Your task to perform on an android device: What's the weather? Image 0: 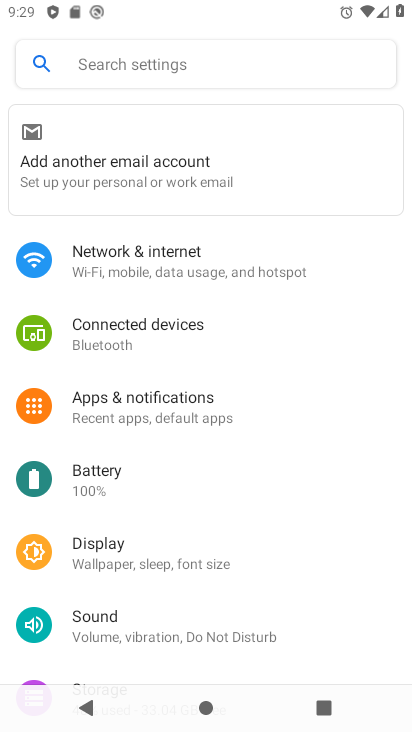
Step 0: press home button
Your task to perform on an android device: What's the weather? Image 1: 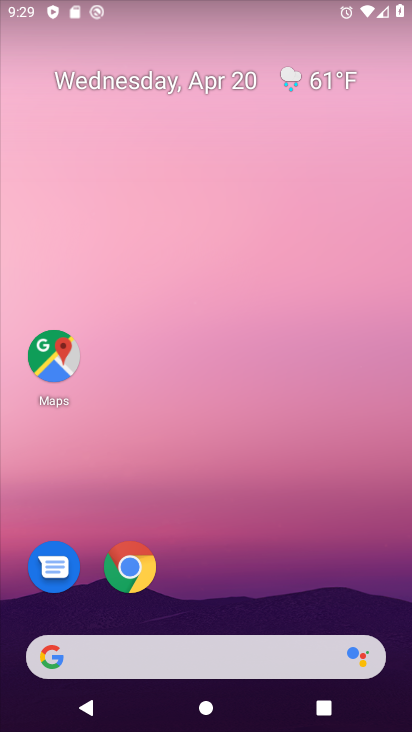
Step 1: drag from (215, 592) to (217, 150)
Your task to perform on an android device: What's the weather? Image 2: 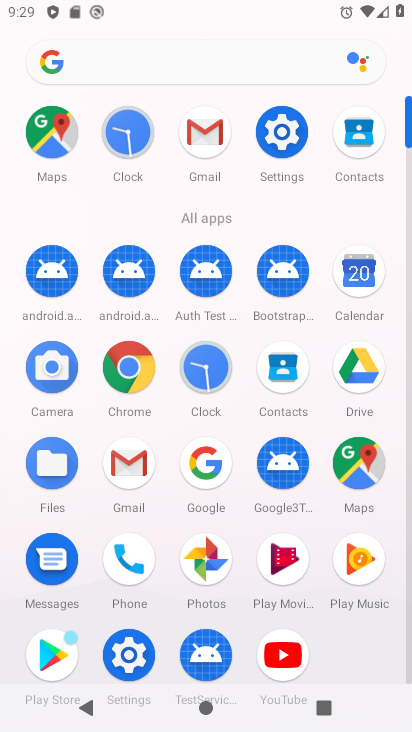
Step 2: click (202, 448)
Your task to perform on an android device: What's the weather? Image 3: 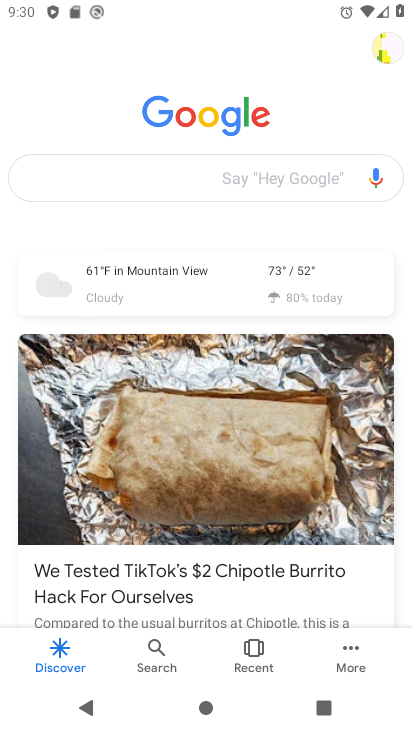
Step 3: click (180, 261)
Your task to perform on an android device: What's the weather? Image 4: 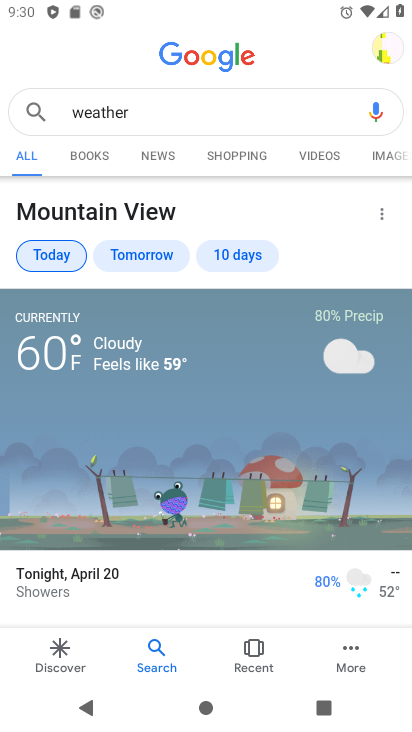
Step 4: click (169, 433)
Your task to perform on an android device: What's the weather? Image 5: 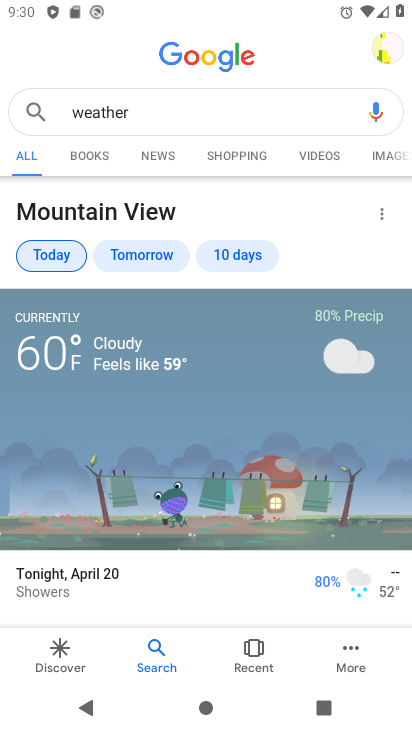
Step 5: task complete